Your task to perform on an android device: open app "Airtel Thanks" (install if not already installed) and go to login screen Image 0: 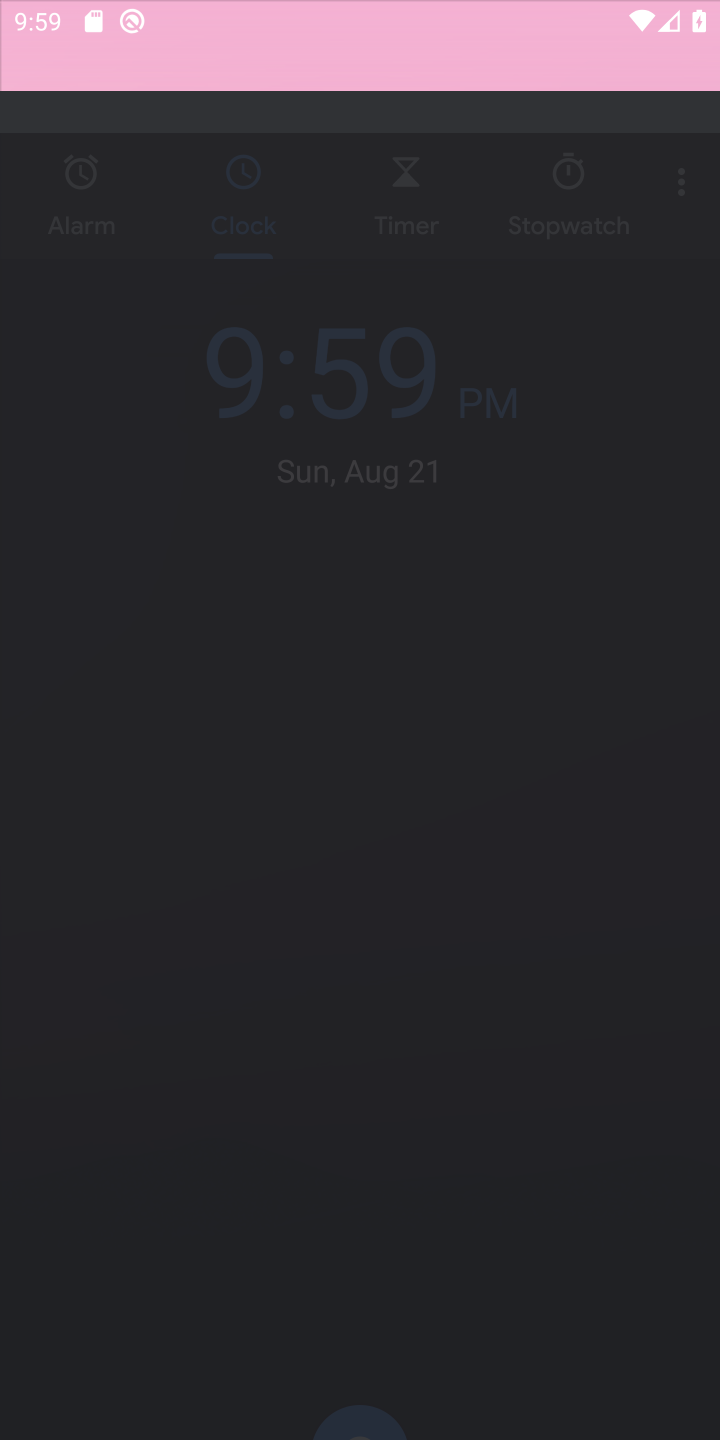
Step 0: click (573, 78)
Your task to perform on an android device: open app "Airtel Thanks" (install if not already installed) and go to login screen Image 1: 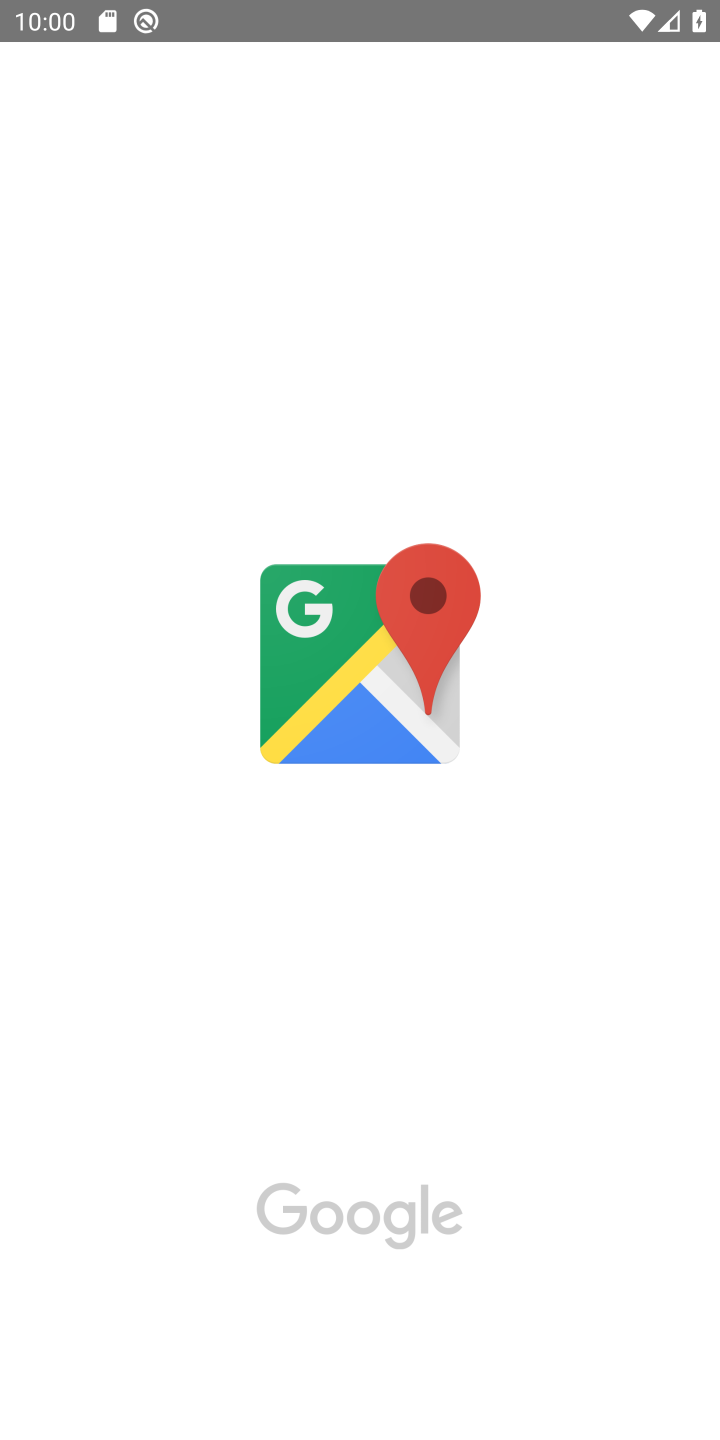
Step 1: press home button
Your task to perform on an android device: open app "Airtel Thanks" (install if not already installed) and go to login screen Image 2: 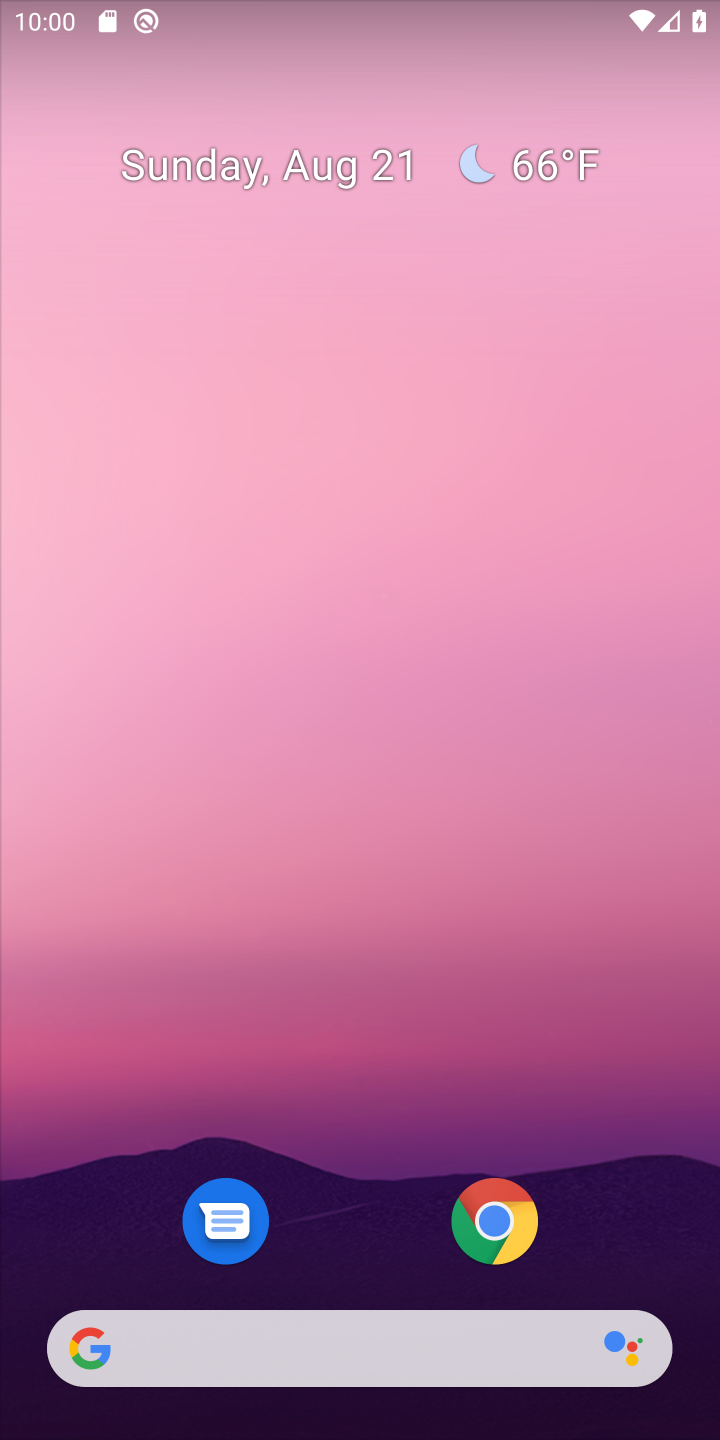
Step 2: drag from (351, 1137) to (316, 278)
Your task to perform on an android device: open app "Airtel Thanks" (install if not already installed) and go to login screen Image 3: 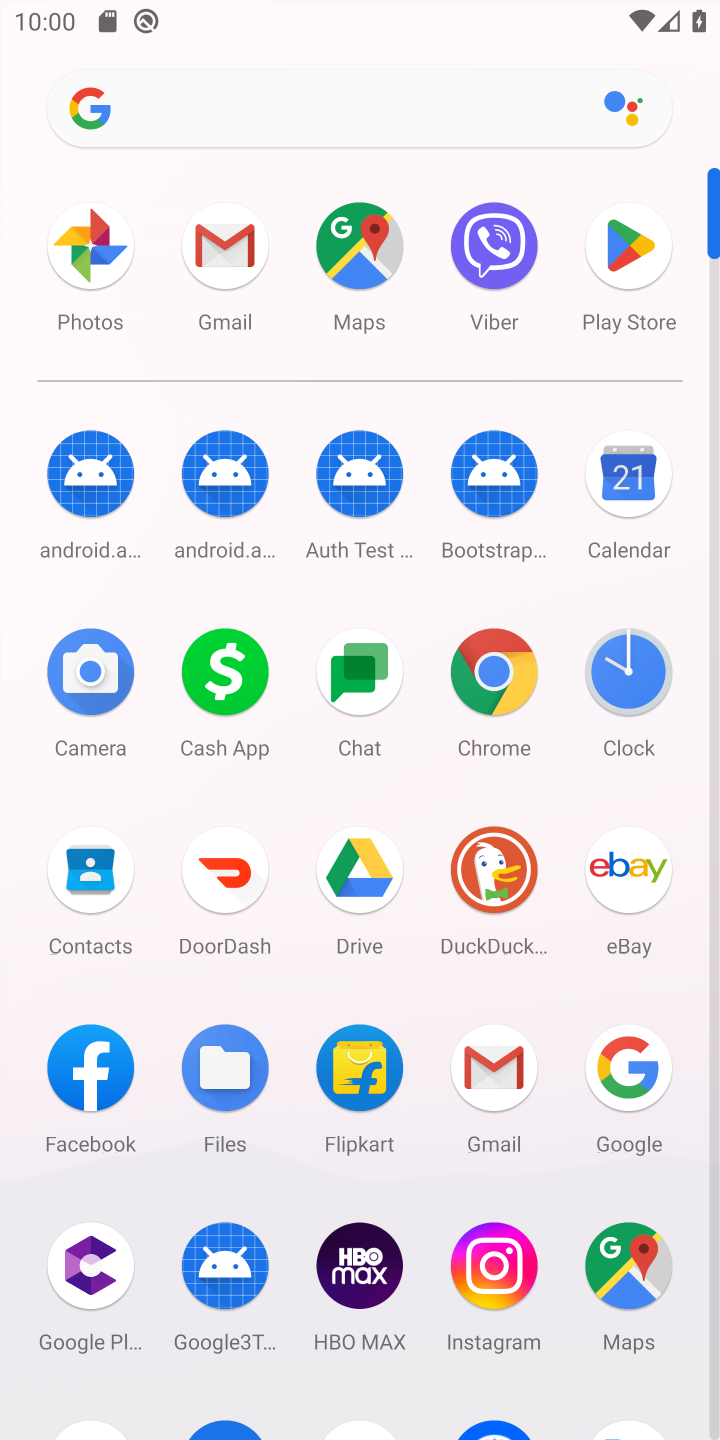
Step 3: click (595, 240)
Your task to perform on an android device: open app "Airtel Thanks" (install if not already installed) and go to login screen Image 4: 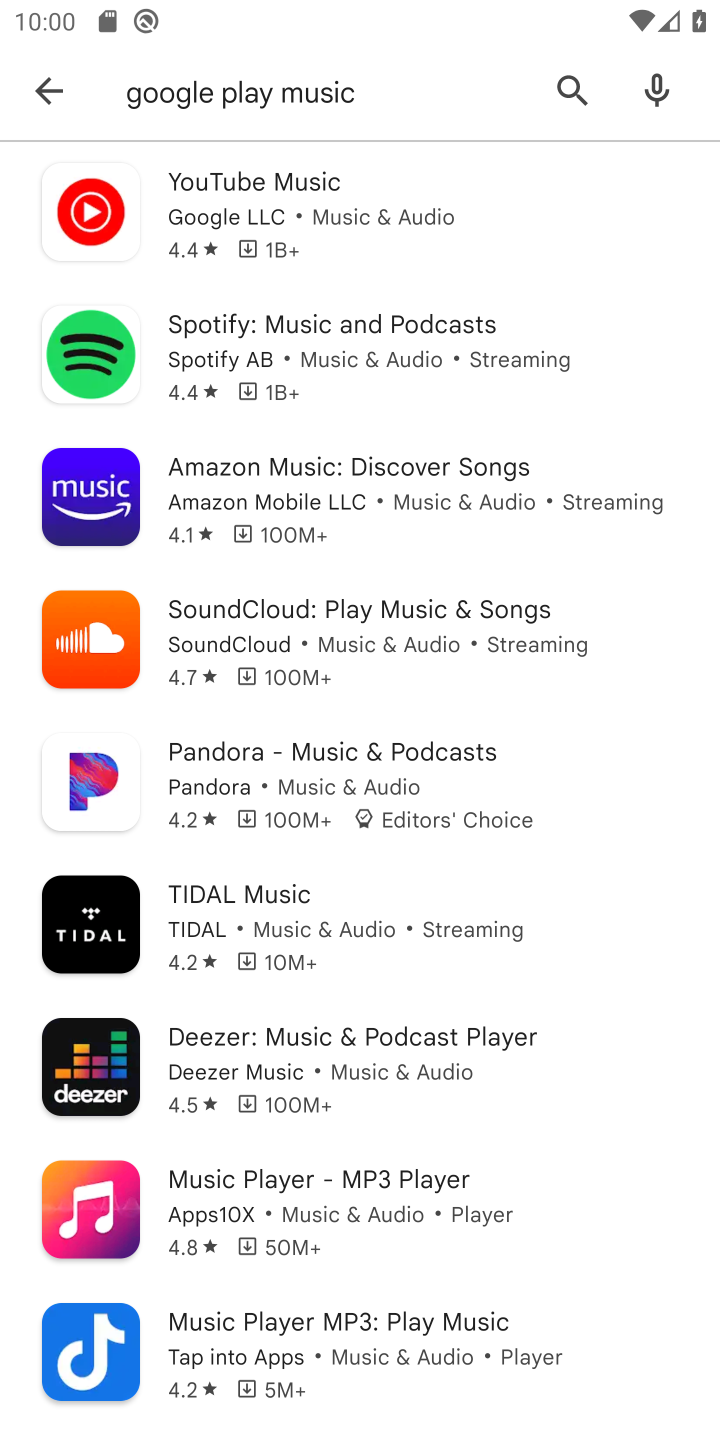
Step 4: click (565, 89)
Your task to perform on an android device: open app "Airtel Thanks" (install if not already installed) and go to login screen Image 5: 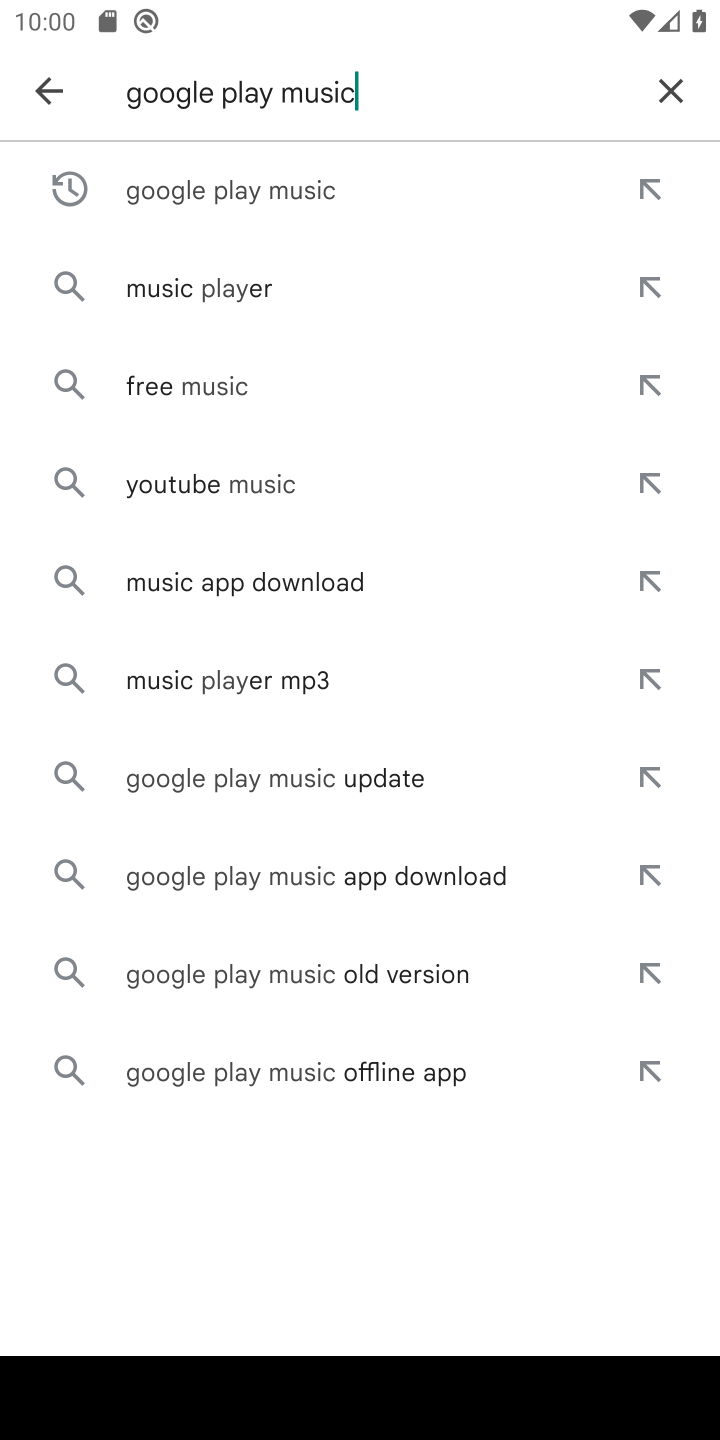
Step 5: click (662, 94)
Your task to perform on an android device: open app "Airtel Thanks" (install if not already installed) and go to login screen Image 6: 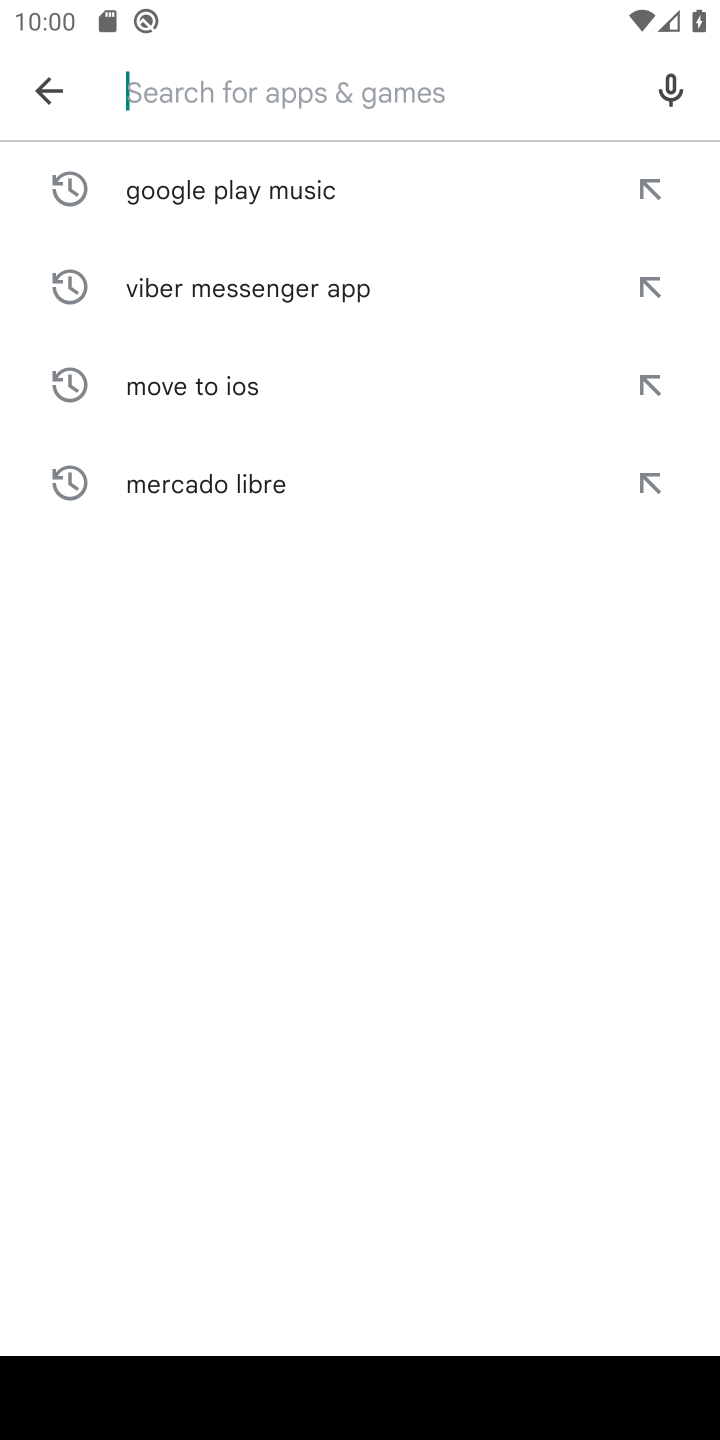
Step 6: type "Airtel Thanks"
Your task to perform on an android device: open app "Airtel Thanks" (install if not already installed) and go to login screen Image 7: 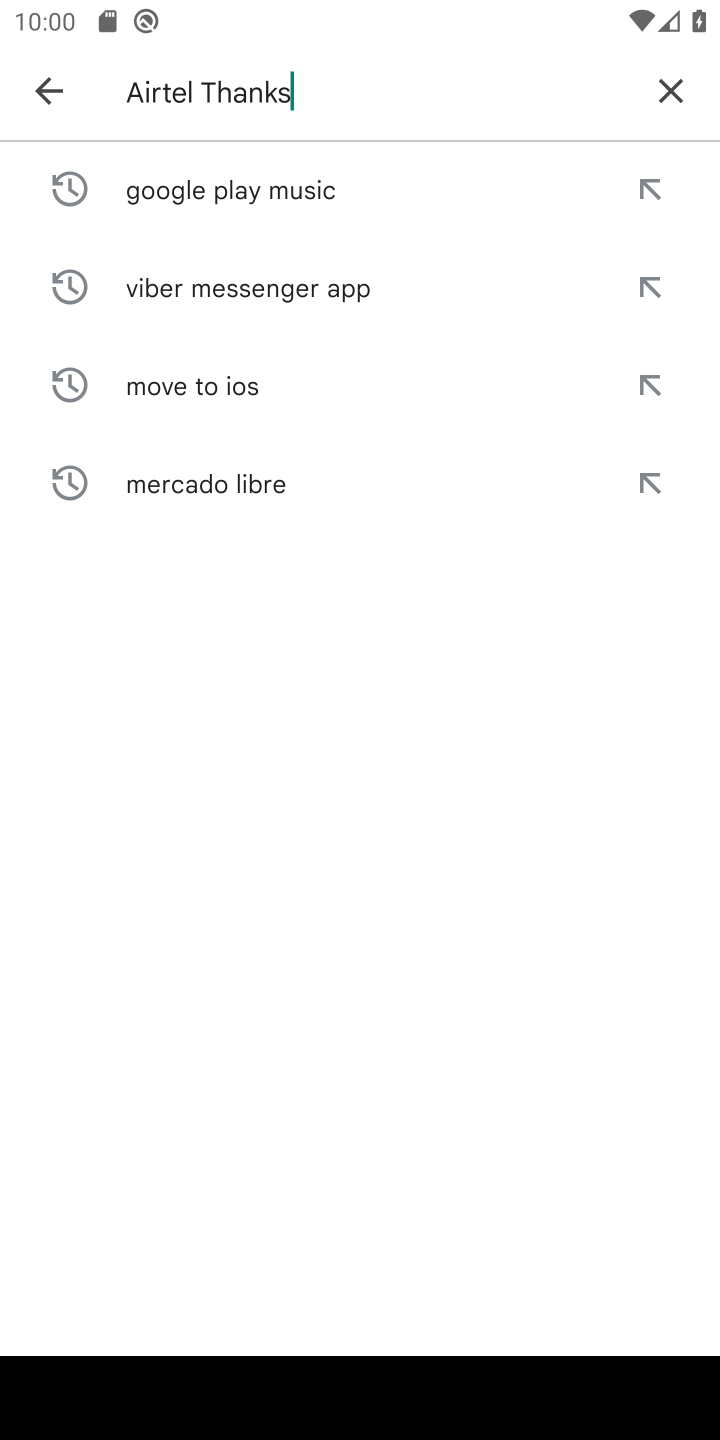
Step 7: type ""
Your task to perform on an android device: open app "Airtel Thanks" (install if not already installed) and go to login screen Image 8: 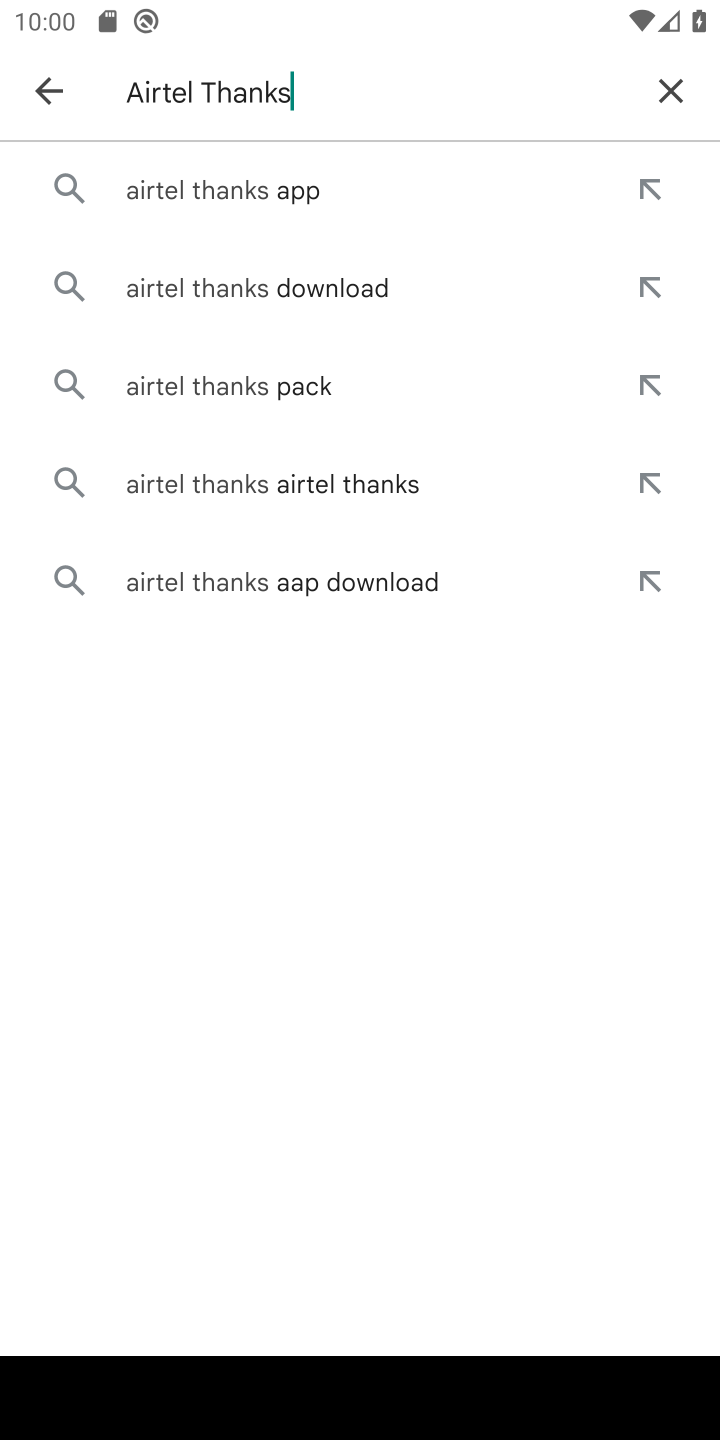
Step 8: click (243, 190)
Your task to perform on an android device: open app "Airtel Thanks" (install if not already installed) and go to login screen Image 9: 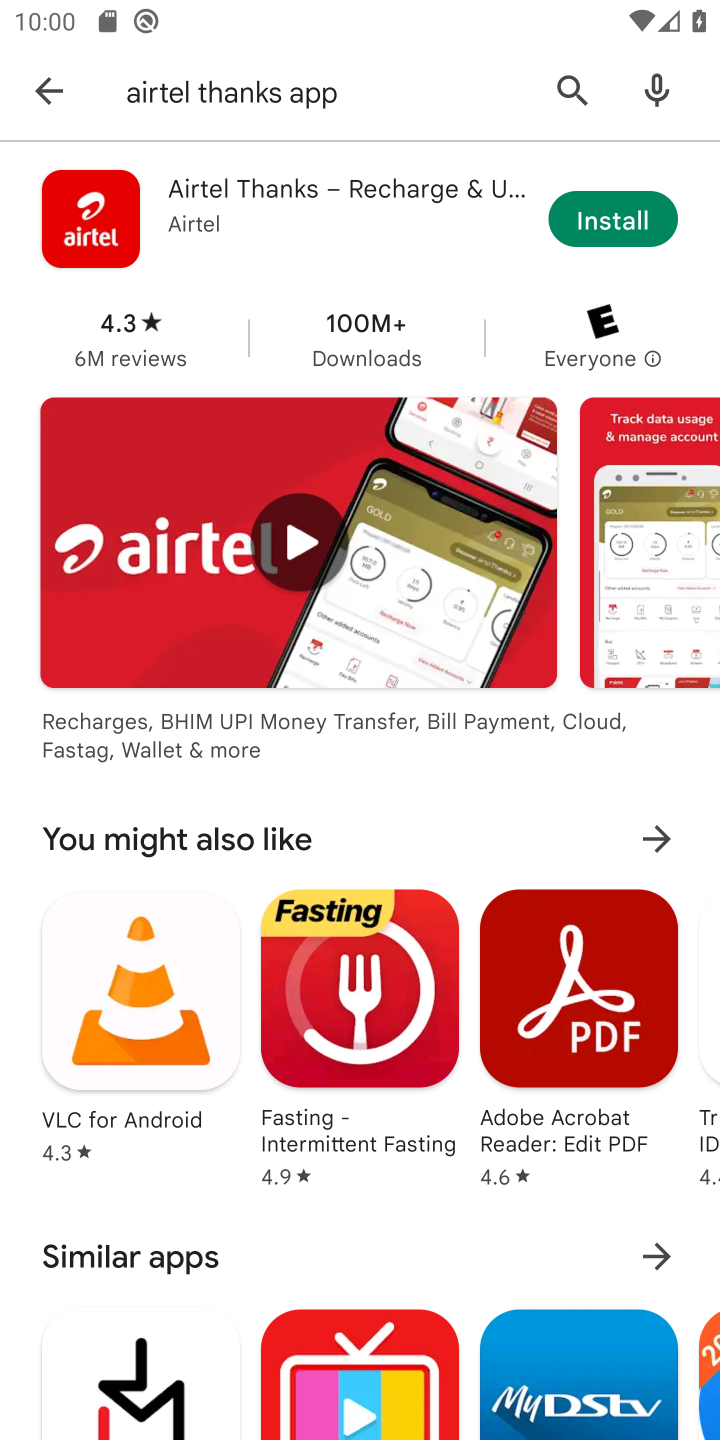
Step 9: click (621, 196)
Your task to perform on an android device: open app "Airtel Thanks" (install if not already installed) and go to login screen Image 10: 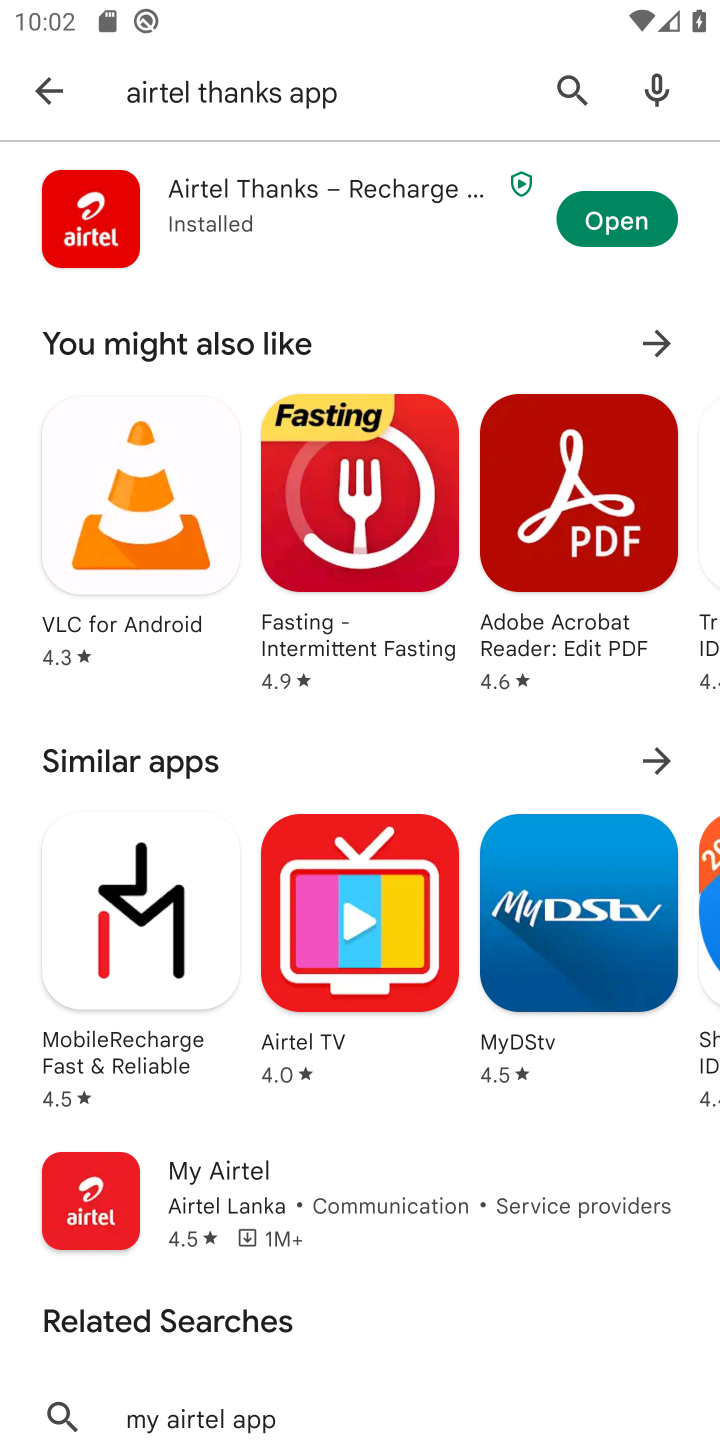
Step 10: click (648, 220)
Your task to perform on an android device: open app "Airtel Thanks" (install if not already installed) and go to login screen Image 11: 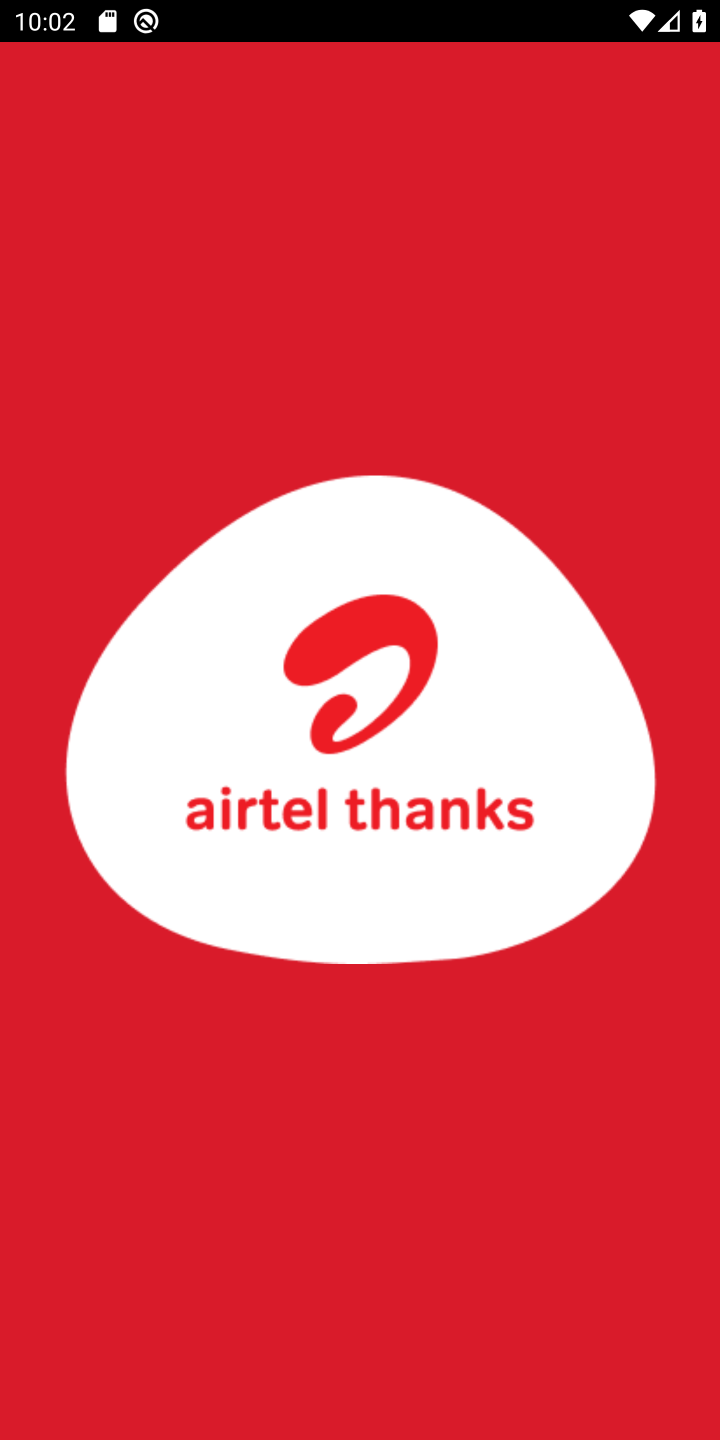
Step 11: task complete